Your task to perform on an android device: add a contact in the contacts app Image 0: 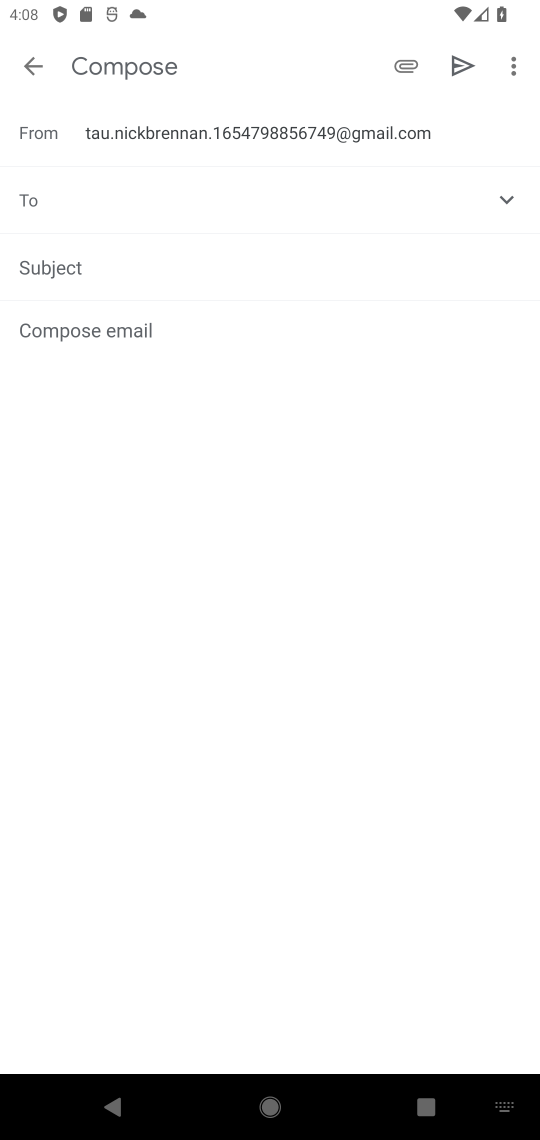
Step 0: press home button
Your task to perform on an android device: add a contact in the contacts app Image 1: 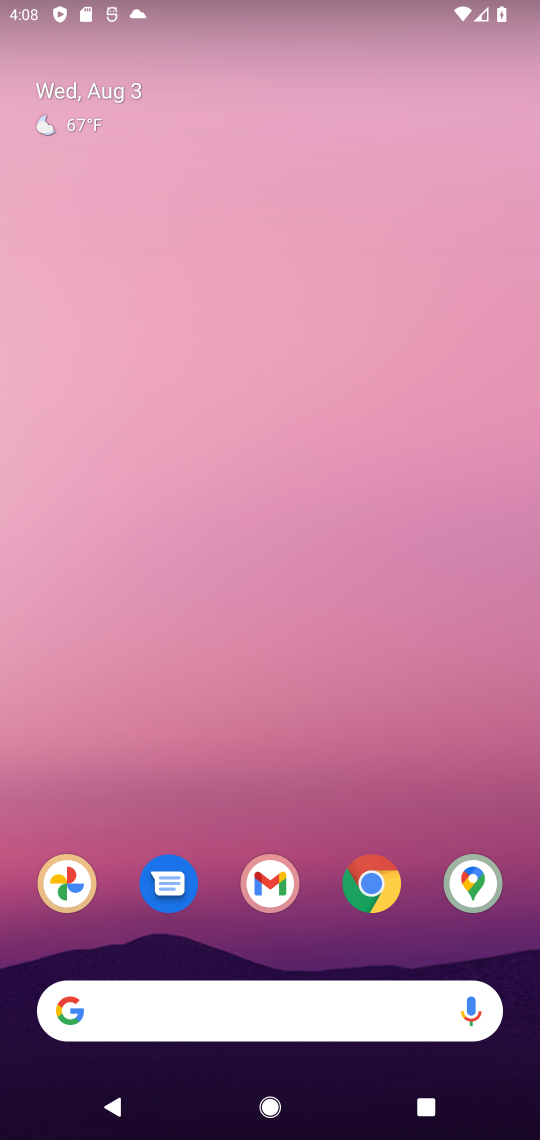
Step 1: drag from (239, 947) to (281, 2)
Your task to perform on an android device: add a contact in the contacts app Image 2: 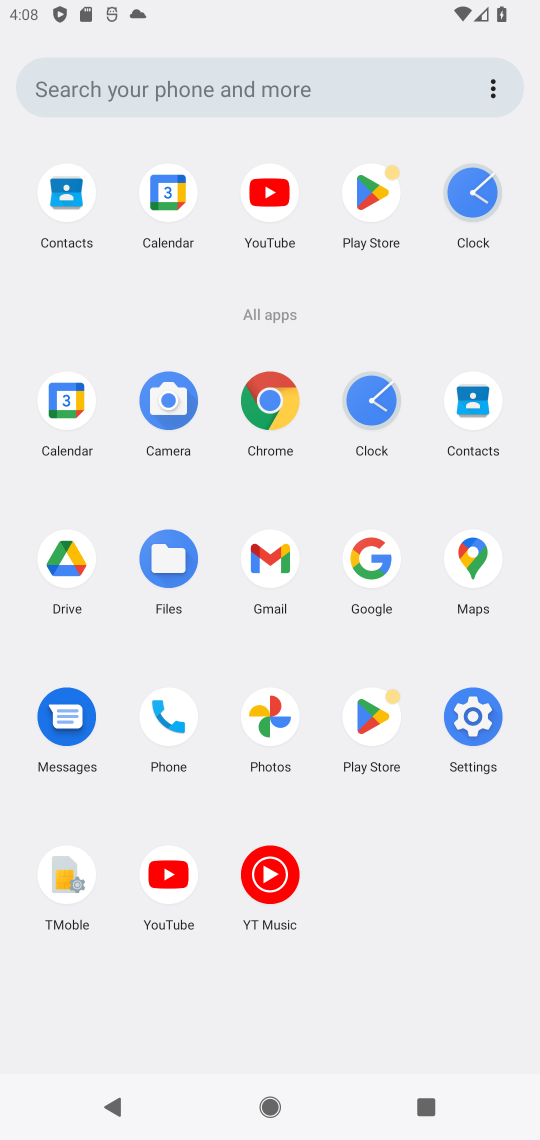
Step 2: click (473, 410)
Your task to perform on an android device: add a contact in the contacts app Image 3: 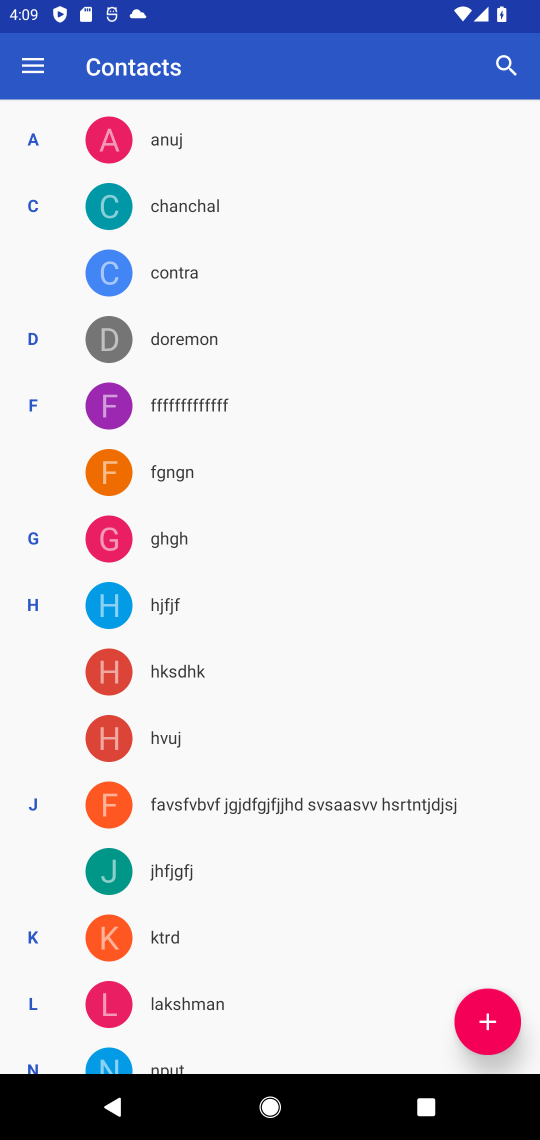
Step 3: click (485, 1031)
Your task to perform on an android device: add a contact in the contacts app Image 4: 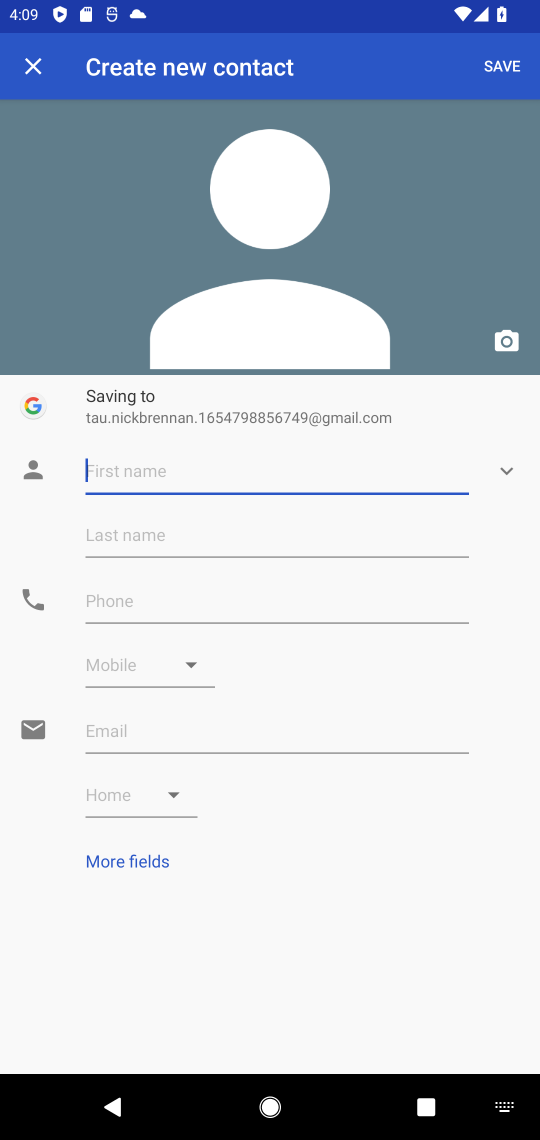
Step 4: type "fames"
Your task to perform on an android device: add a contact in the contacts app Image 5: 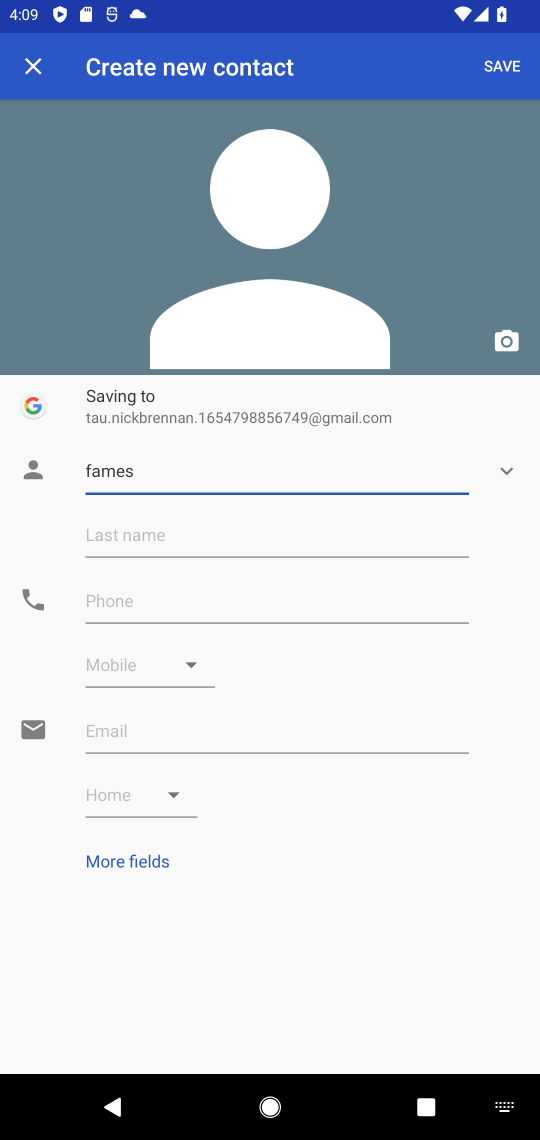
Step 5: click (500, 51)
Your task to perform on an android device: add a contact in the contacts app Image 6: 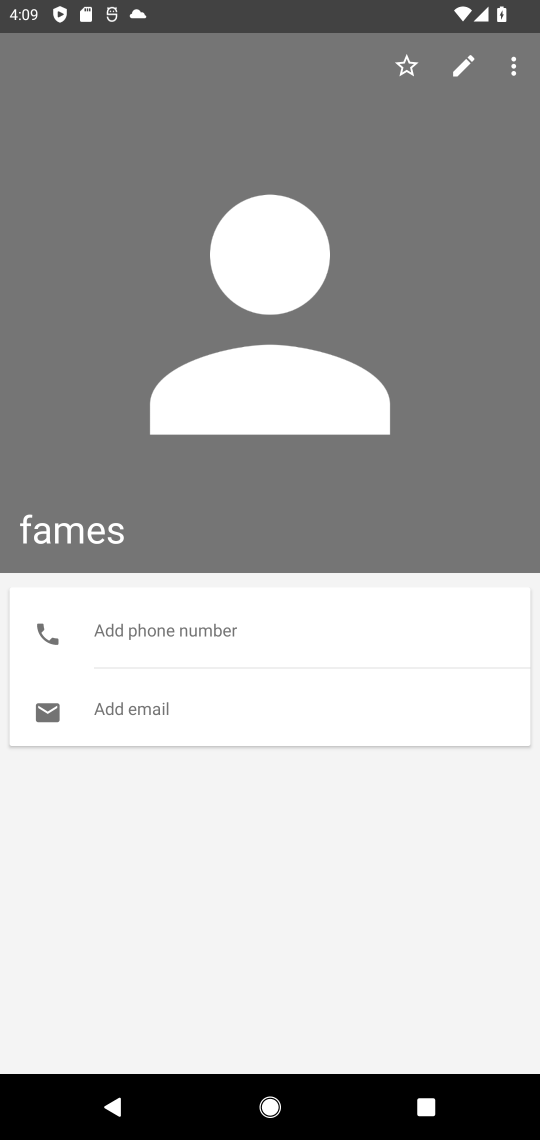
Step 6: task complete